Your task to perform on an android device: change notification settings in the gmail app Image 0: 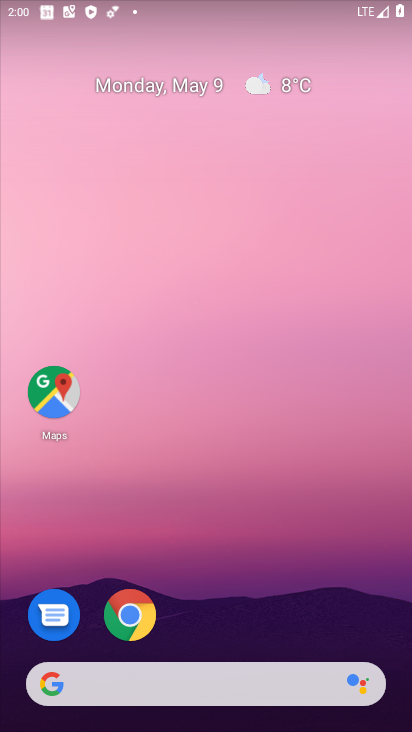
Step 0: drag from (391, 669) to (217, 135)
Your task to perform on an android device: change notification settings in the gmail app Image 1: 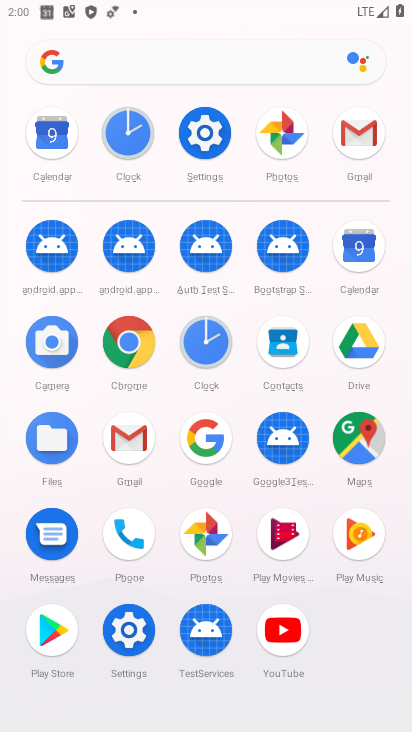
Step 1: click (128, 439)
Your task to perform on an android device: change notification settings in the gmail app Image 2: 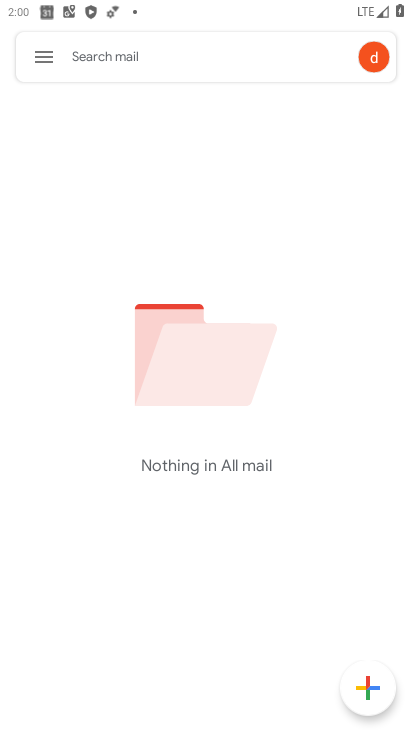
Step 2: click (43, 54)
Your task to perform on an android device: change notification settings in the gmail app Image 3: 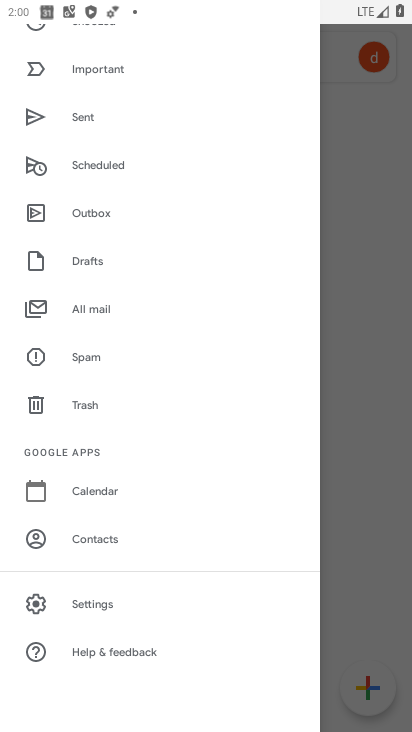
Step 3: click (67, 600)
Your task to perform on an android device: change notification settings in the gmail app Image 4: 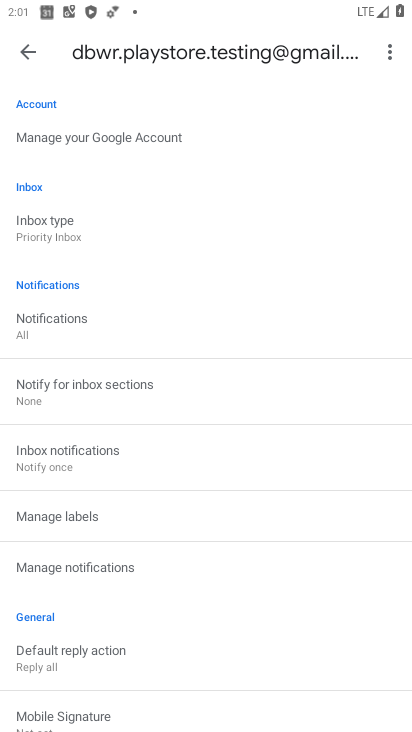
Step 4: click (88, 567)
Your task to perform on an android device: change notification settings in the gmail app Image 5: 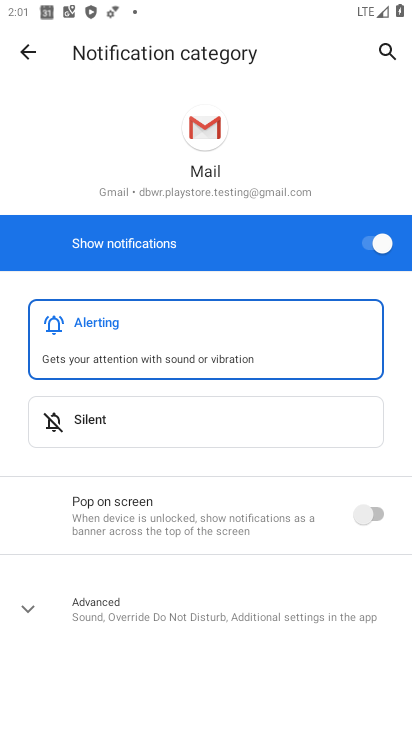
Step 5: click (365, 237)
Your task to perform on an android device: change notification settings in the gmail app Image 6: 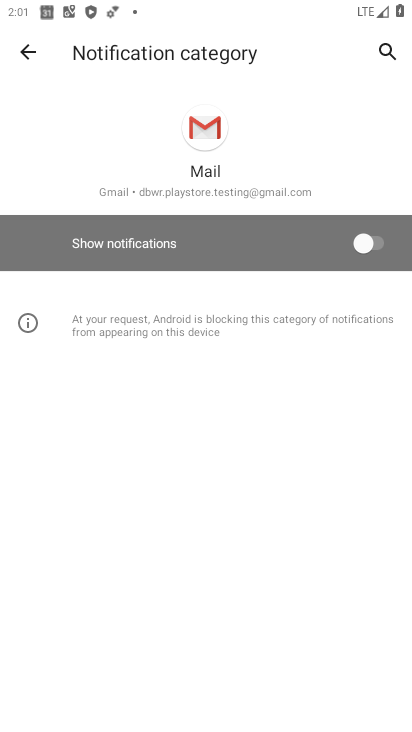
Step 6: task complete